Your task to perform on an android device: manage bookmarks in the chrome app Image 0: 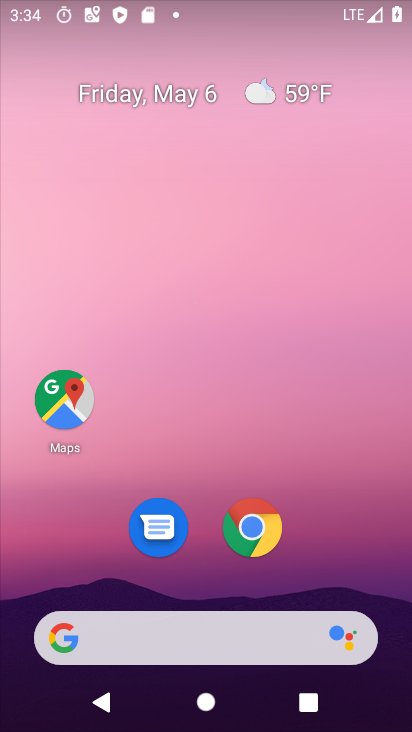
Step 0: click (240, 547)
Your task to perform on an android device: manage bookmarks in the chrome app Image 1: 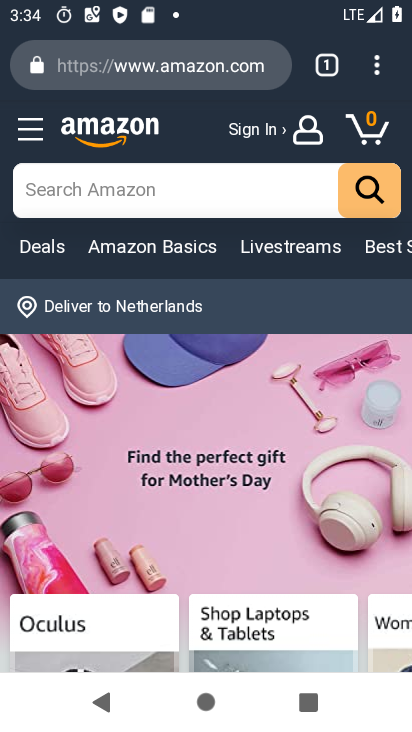
Step 1: click (383, 70)
Your task to perform on an android device: manage bookmarks in the chrome app Image 2: 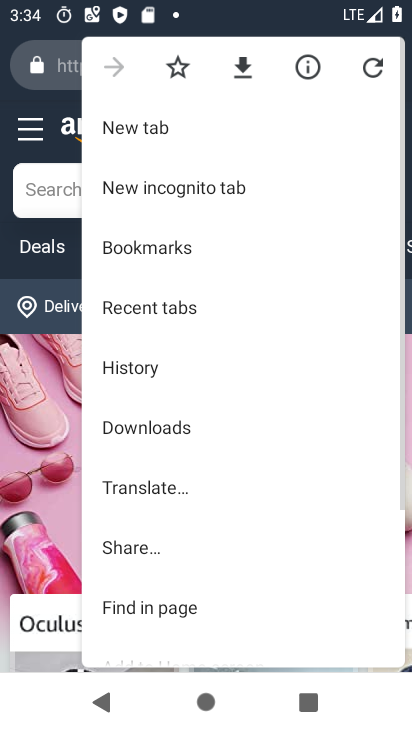
Step 2: click (169, 246)
Your task to perform on an android device: manage bookmarks in the chrome app Image 3: 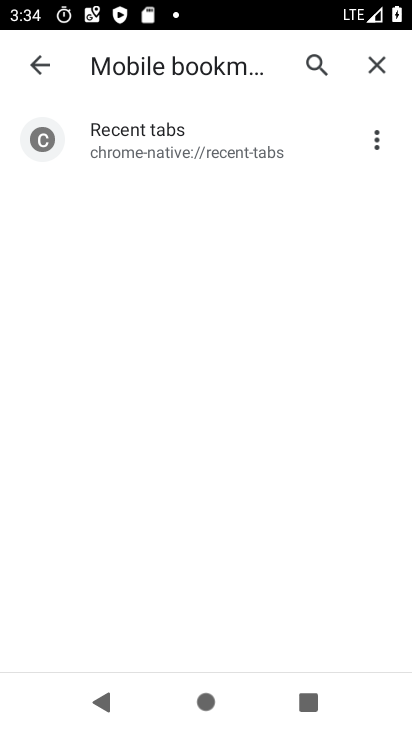
Step 3: click (383, 147)
Your task to perform on an android device: manage bookmarks in the chrome app Image 4: 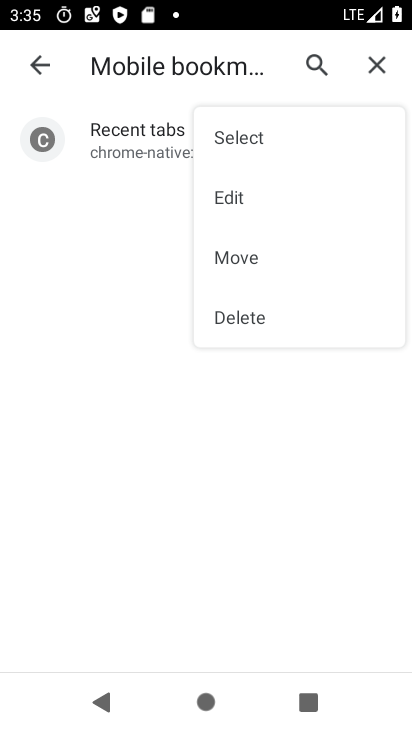
Step 4: click (262, 325)
Your task to perform on an android device: manage bookmarks in the chrome app Image 5: 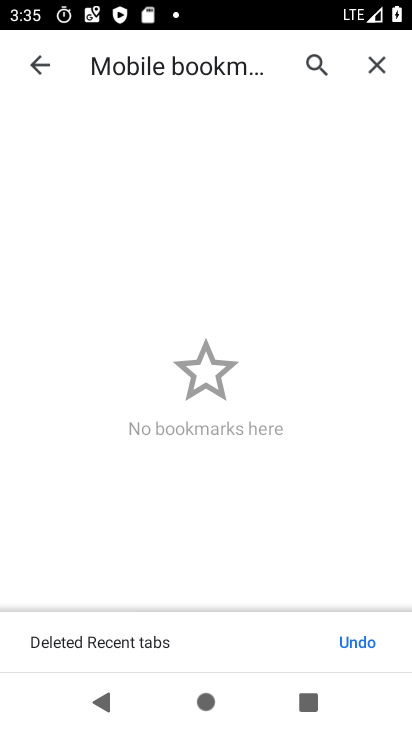
Step 5: task complete